Your task to perform on an android device: change the upload size in google photos Image 0: 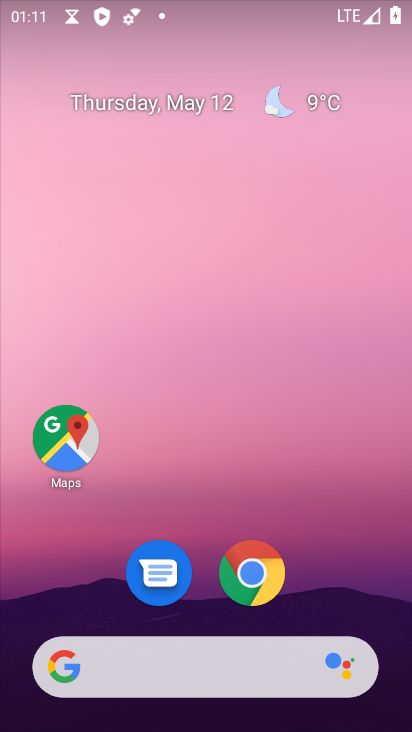
Step 0: drag from (359, 618) to (286, 19)
Your task to perform on an android device: change the upload size in google photos Image 1: 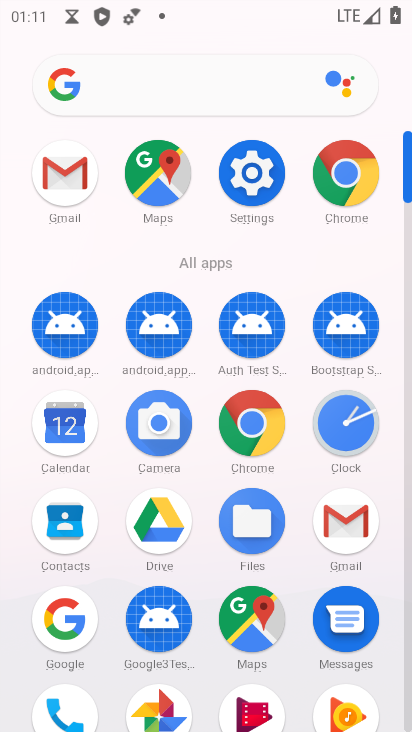
Step 1: click (136, 727)
Your task to perform on an android device: change the upload size in google photos Image 2: 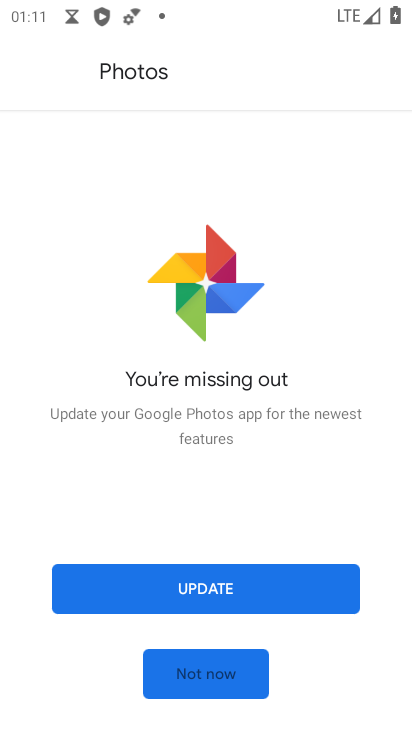
Step 2: click (236, 601)
Your task to perform on an android device: change the upload size in google photos Image 3: 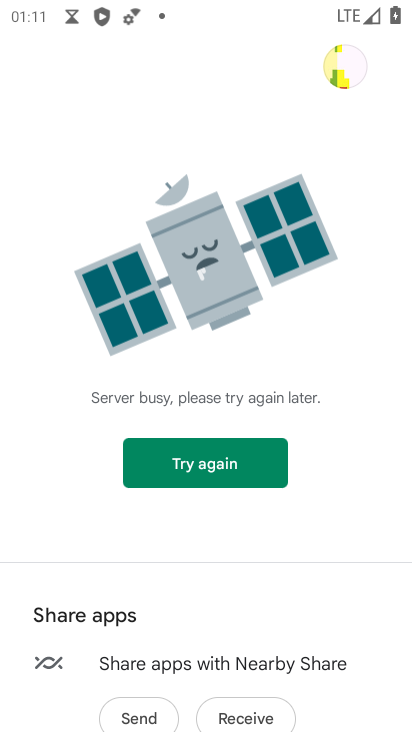
Step 3: click (164, 464)
Your task to perform on an android device: change the upload size in google photos Image 4: 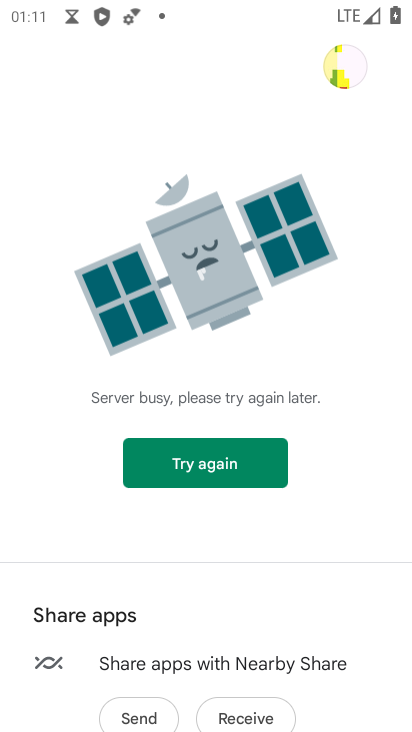
Step 4: click (164, 462)
Your task to perform on an android device: change the upload size in google photos Image 5: 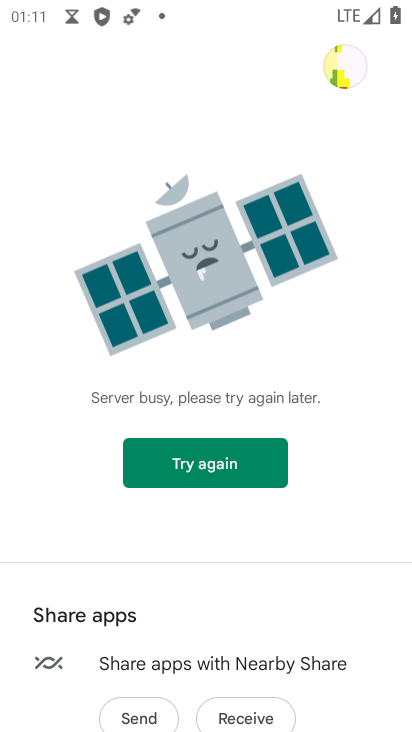
Step 5: task complete